Your task to perform on an android device: Open Google Chrome and open the bookmarks view Image 0: 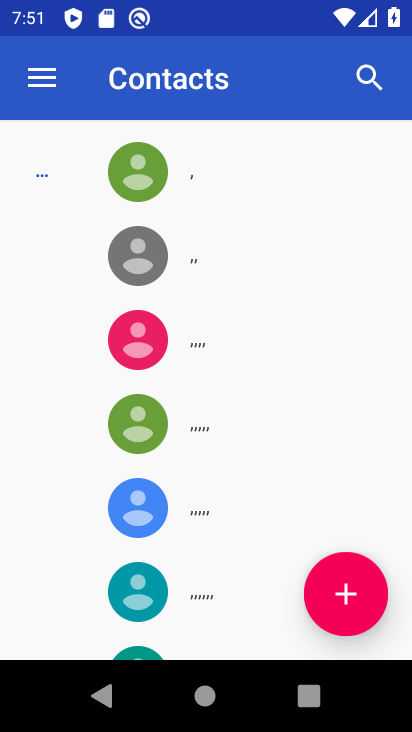
Step 0: press home button
Your task to perform on an android device: Open Google Chrome and open the bookmarks view Image 1: 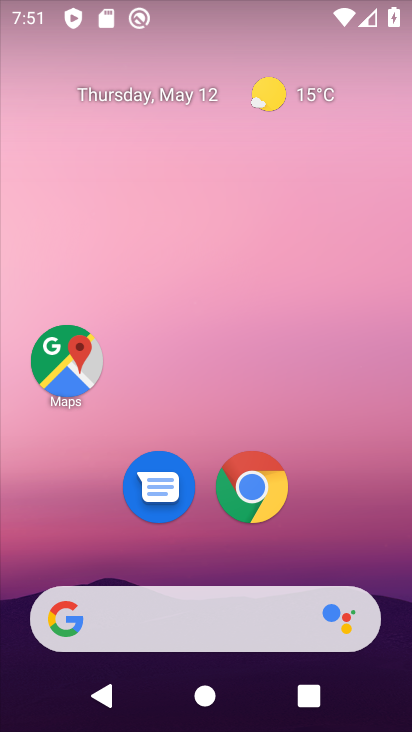
Step 1: drag from (349, 468) to (358, 37)
Your task to perform on an android device: Open Google Chrome and open the bookmarks view Image 2: 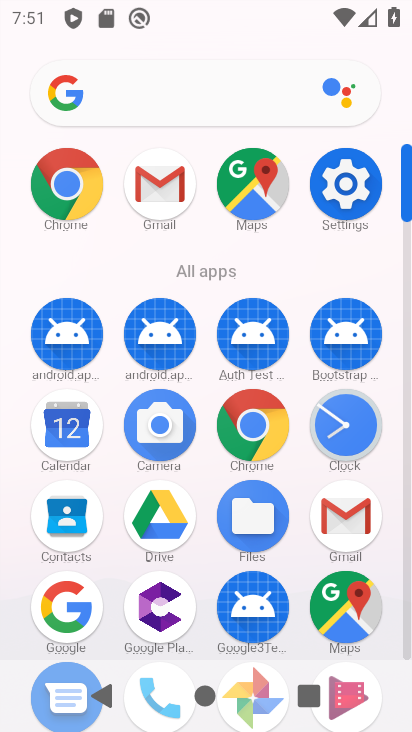
Step 2: click (54, 217)
Your task to perform on an android device: Open Google Chrome and open the bookmarks view Image 3: 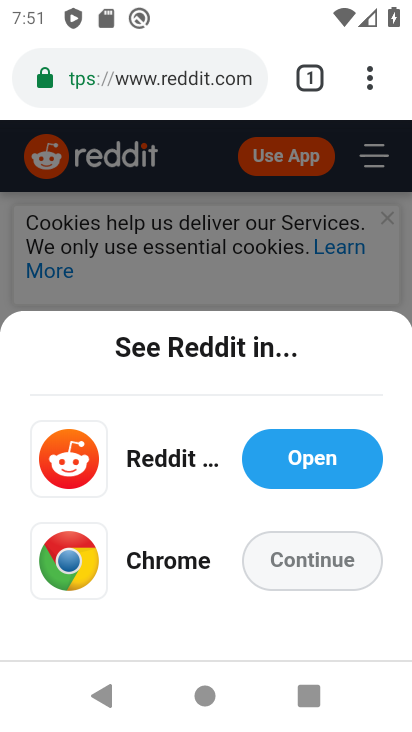
Step 3: drag from (367, 87) to (79, 302)
Your task to perform on an android device: Open Google Chrome and open the bookmarks view Image 4: 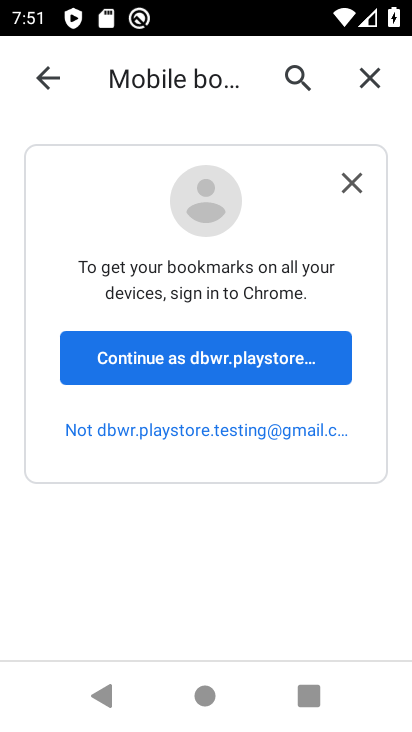
Step 4: click (152, 359)
Your task to perform on an android device: Open Google Chrome and open the bookmarks view Image 5: 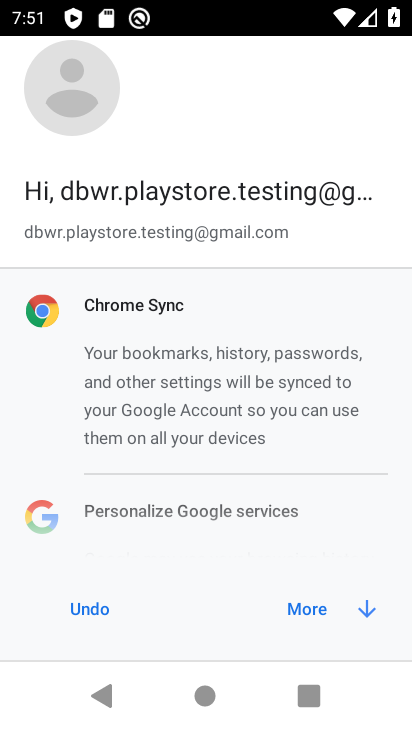
Step 5: click (311, 607)
Your task to perform on an android device: Open Google Chrome and open the bookmarks view Image 6: 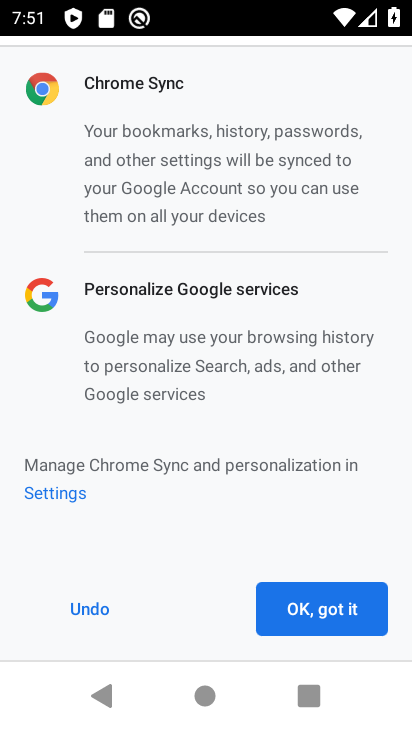
Step 6: click (311, 607)
Your task to perform on an android device: Open Google Chrome and open the bookmarks view Image 7: 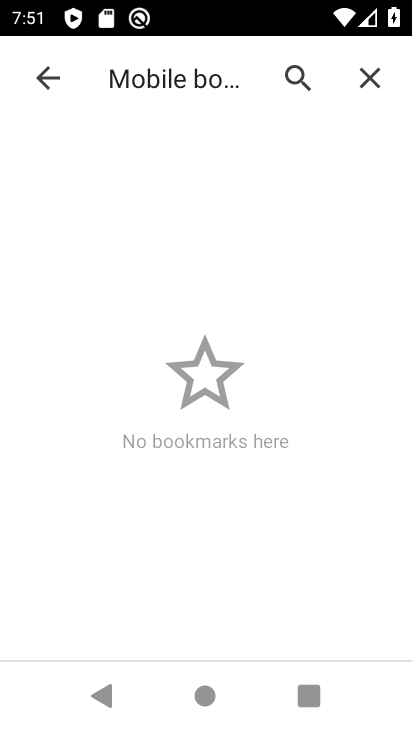
Step 7: task complete